Your task to perform on an android device: open the mobile data screen to see how much data has been used Image 0: 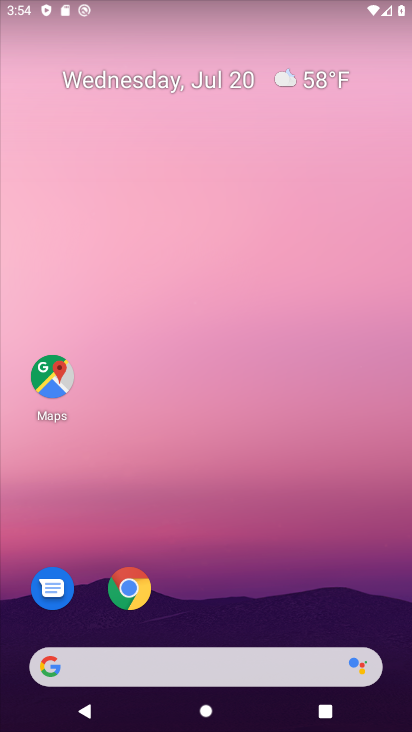
Step 0: drag from (220, 640) to (227, 85)
Your task to perform on an android device: open the mobile data screen to see how much data has been used Image 1: 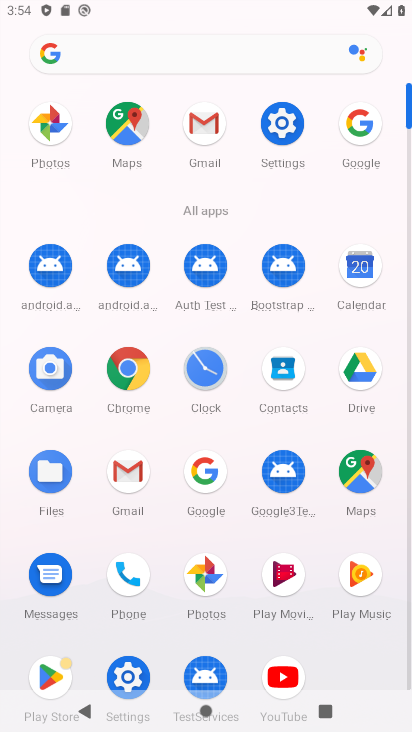
Step 1: click (275, 125)
Your task to perform on an android device: open the mobile data screen to see how much data has been used Image 2: 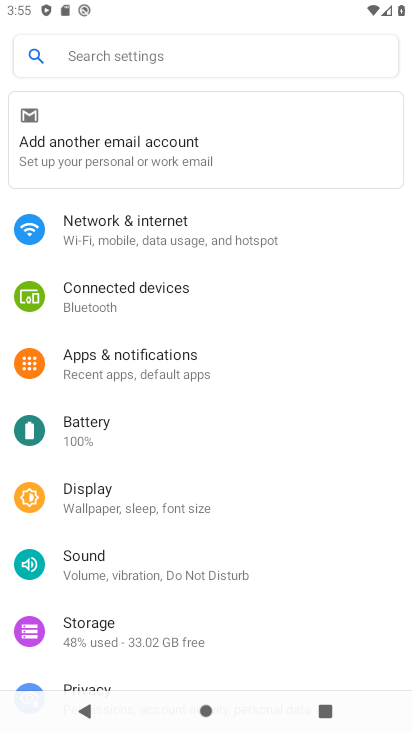
Step 2: click (140, 224)
Your task to perform on an android device: open the mobile data screen to see how much data has been used Image 3: 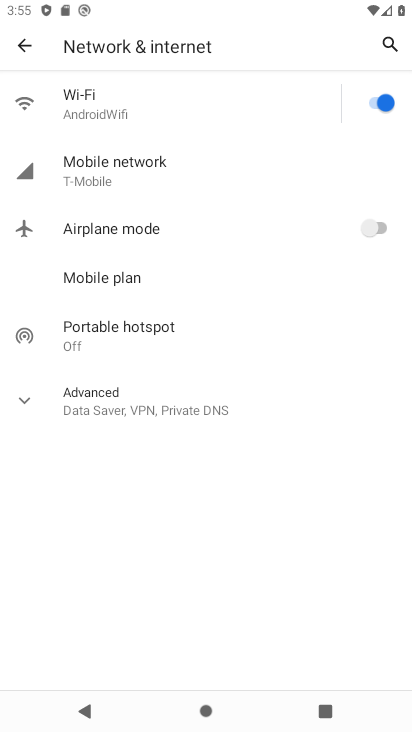
Step 3: click (120, 165)
Your task to perform on an android device: open the mobile data screen to see how much data has been used Image 4: 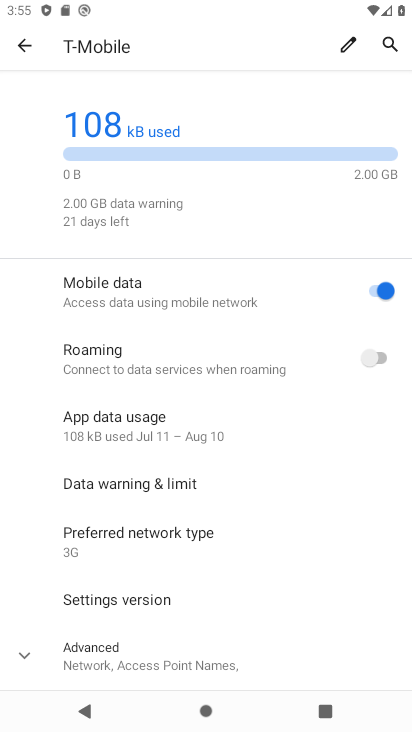
Step 4: task complete